Your task to perform on an android device: open the mobile data screen to see how much data has been used Image 0: 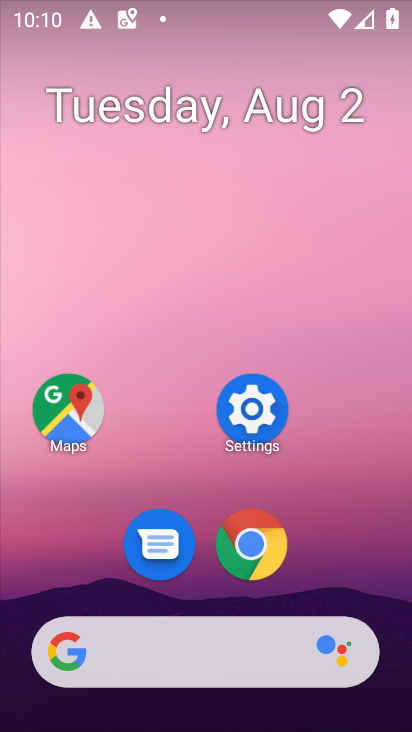
Step 0: click (255, 412)
Your task to perform on an android device: open the mobile data screen to see how much data has been used Image 1: 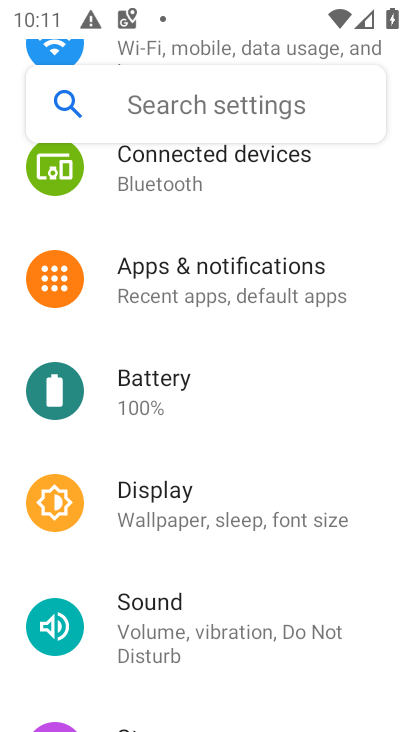
Step 1: drag from (348, 203) to (293, 595)
Your task to perform on an android device: open the mobile data screen to see how much data has been used Image 2: 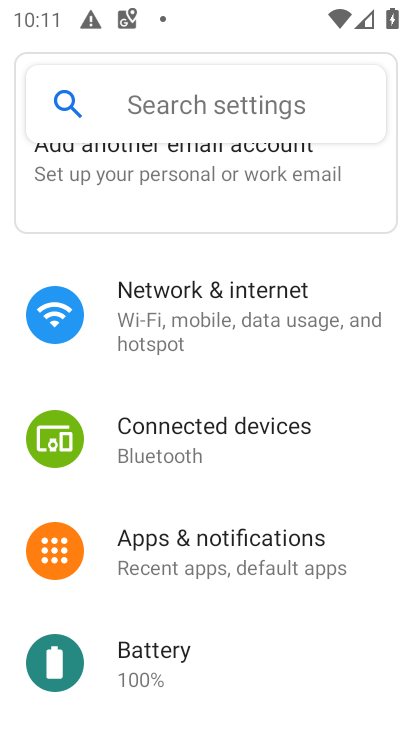
Step 2: click (230, 303)
Your task to perform on an android device: open the mobile data screen to see how much data has been used Image 3: 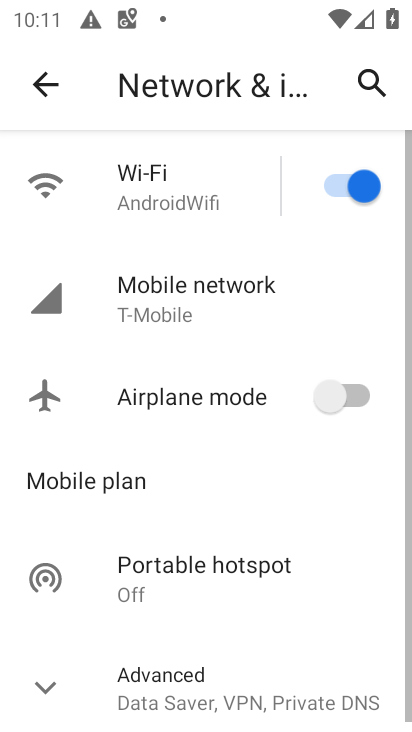
Step 3: click (189, 283)
Your task to perform on an android device: open the mobile data screen to see how much data has been used Image 4: 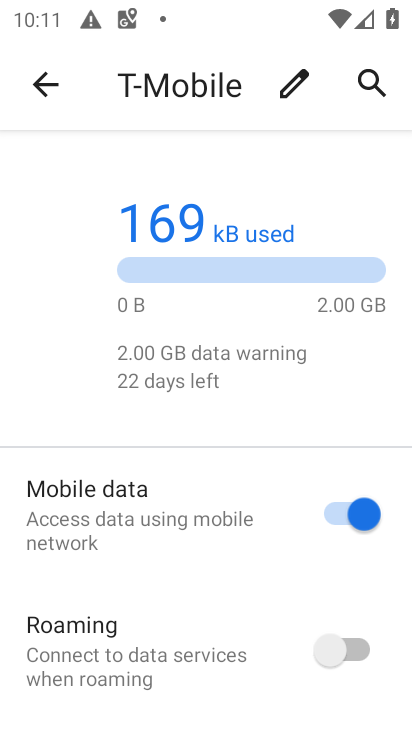
Step 4: task complete